Your task to perform on an android device: Open Chrome and go to settings Image 0: 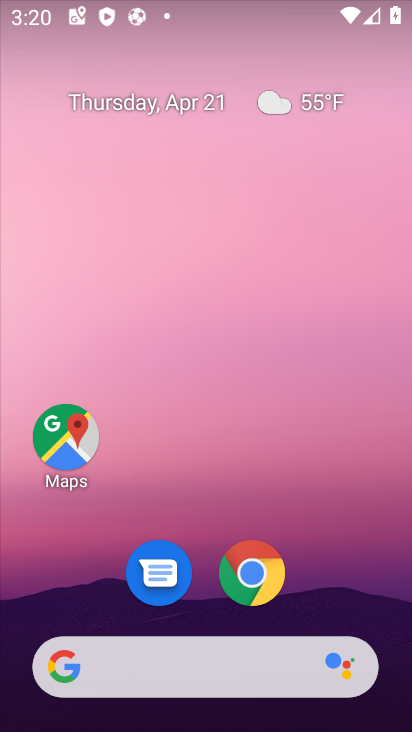
Step 0: click (250, 575)
Your task to perform on an android device: Open Chrome and go to settings Image 1: 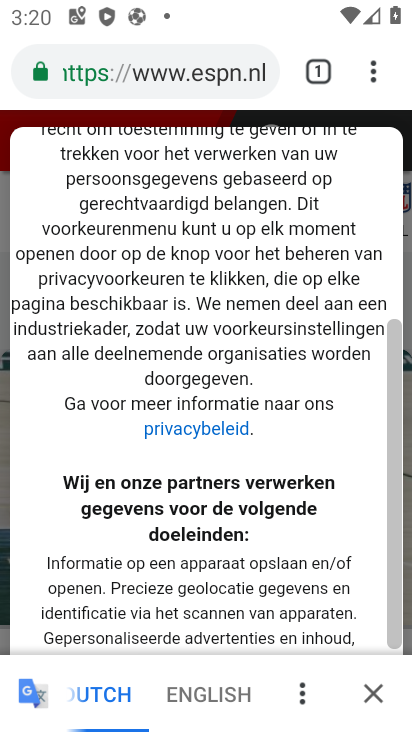
Step 1: click (372, 71)
Your task to perform on an android device: Open Chrome and go to settings Image 2: 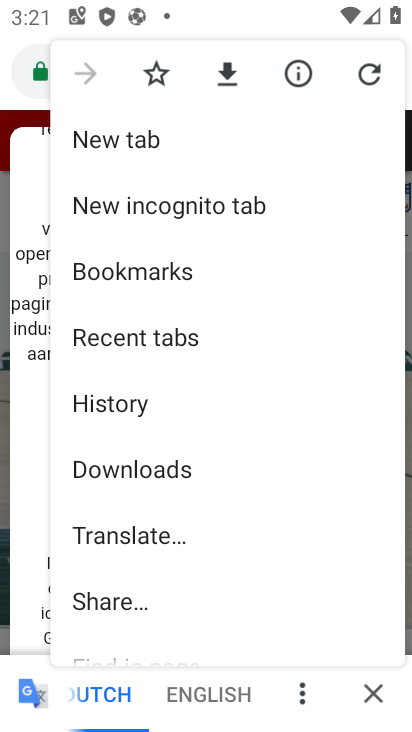
Step 2: drag from (248, 553) to (262, 356)
Your task to perform on an android device: Open Chrome and go to settings Image 3: 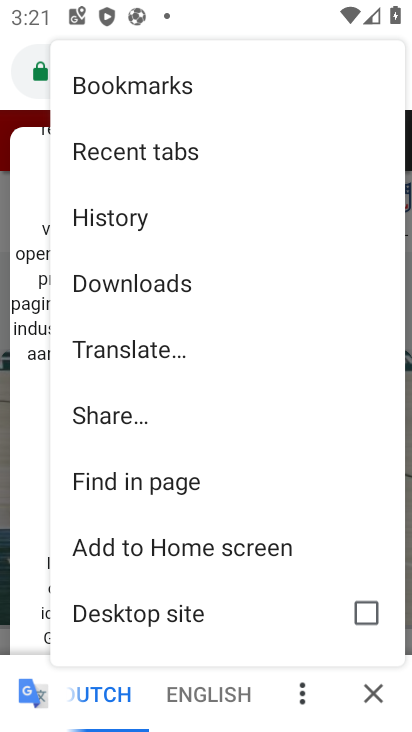
Step 3: drag from (275, 575) to (301, 336)
Your task to perform on an android device: Open Chrome and go to settings Image 4: 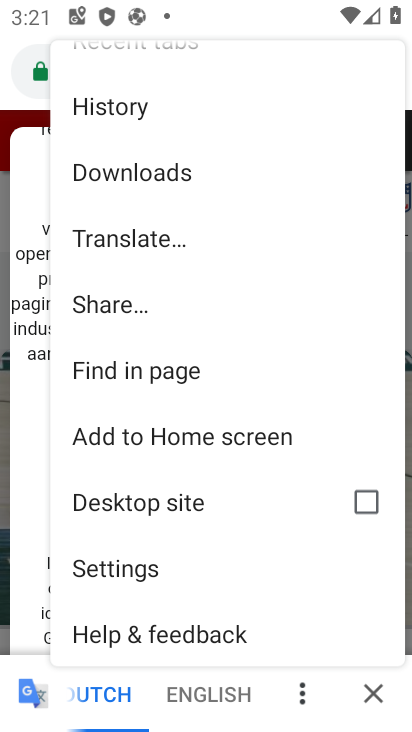
Step 4: click (130, 574)
Your task to perform on an android device: Open Chrome and go to settings Image 5: 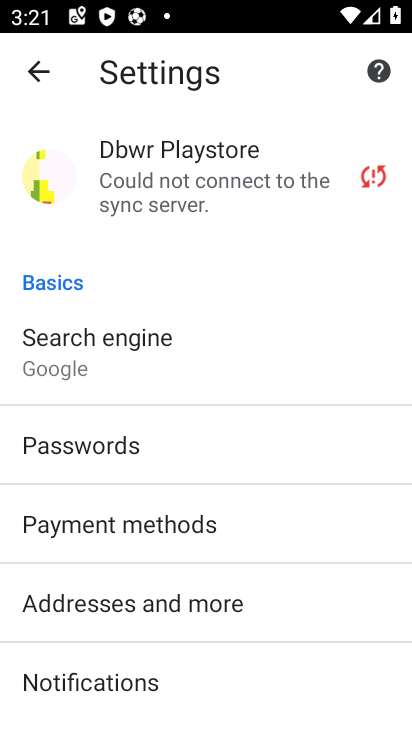
Step 5: task complete